Your task to perform on an android device: Search for hotels in Boston Image 0: 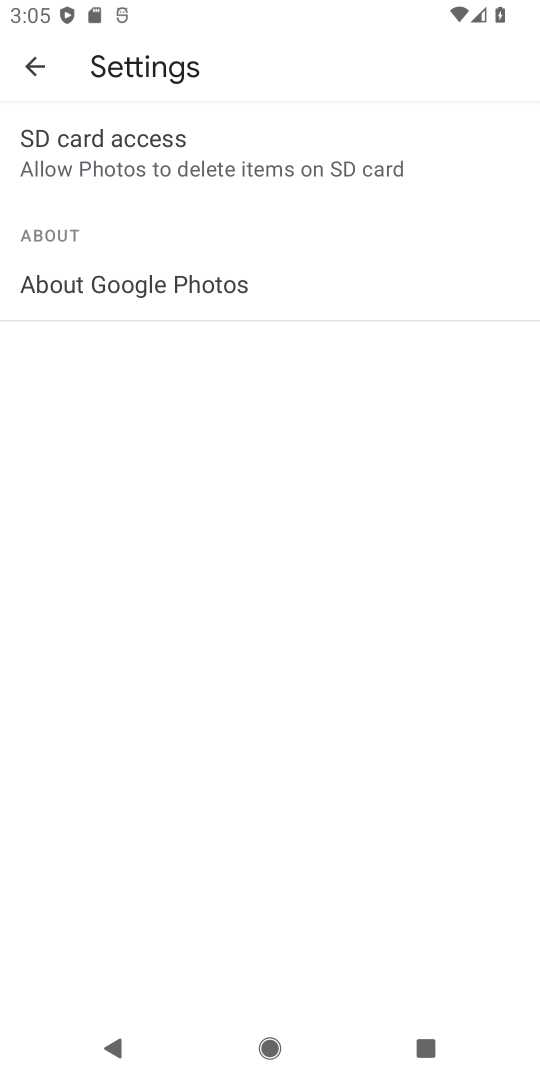
Step 0: press home button
Your task to perform on an android device: Search for hotels in Boston Image 1: 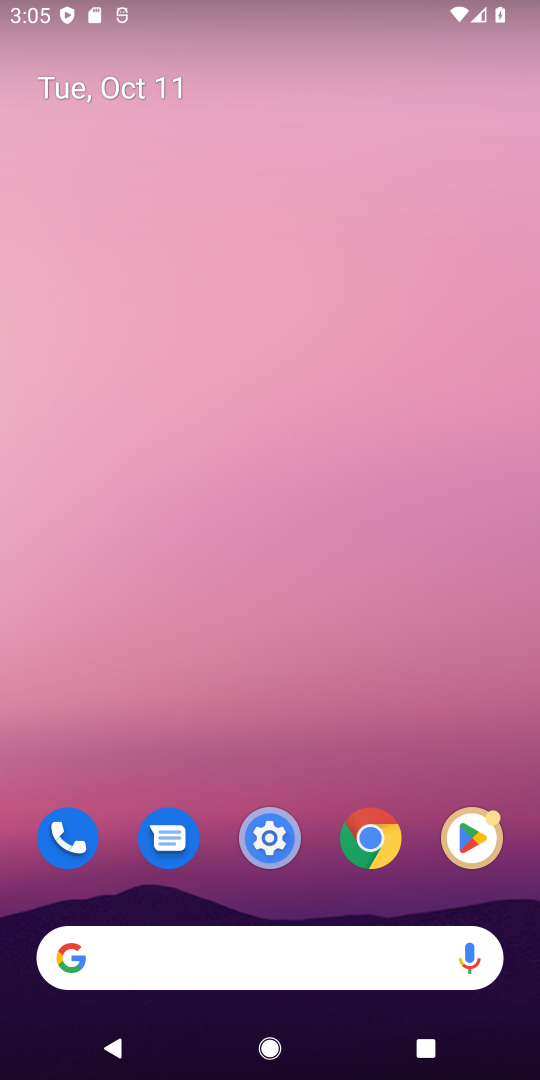
Step 1: click (213, 953)
Your task to perform on an android device: Search for hotels in Boston Image 2: 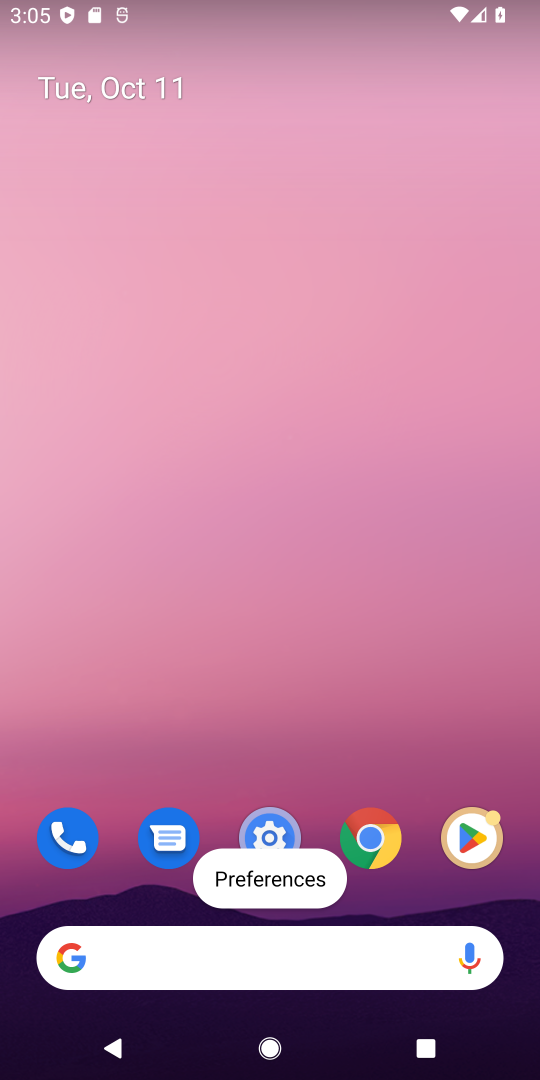
Step 2: click (200, 950)
Your task to perform on an android device: Search for hotels in Boston Image 3: 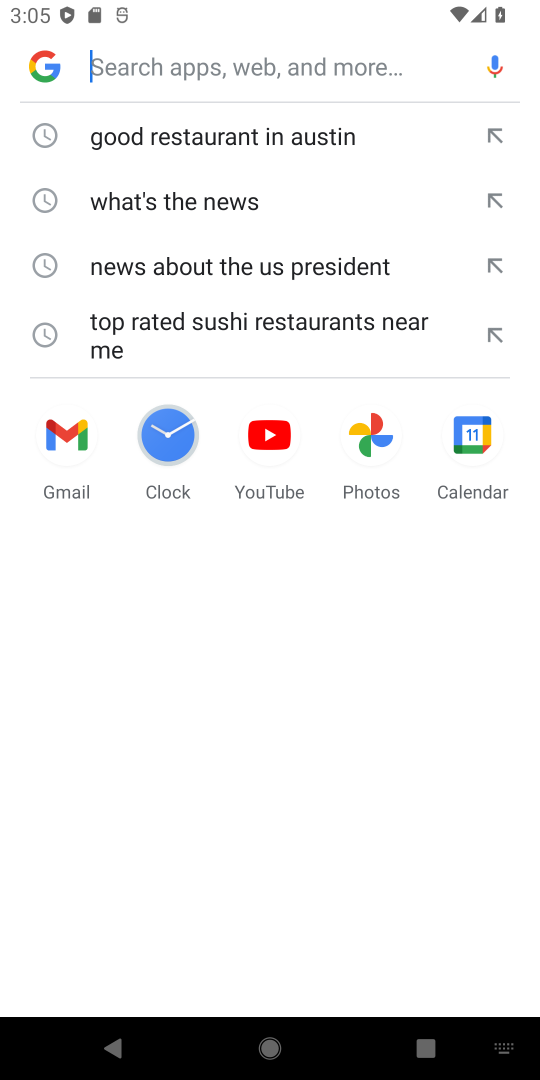
Step 3: type "hotels in Boston"
Your task to perform on an android device: Search for hotels in Boston Image 4: 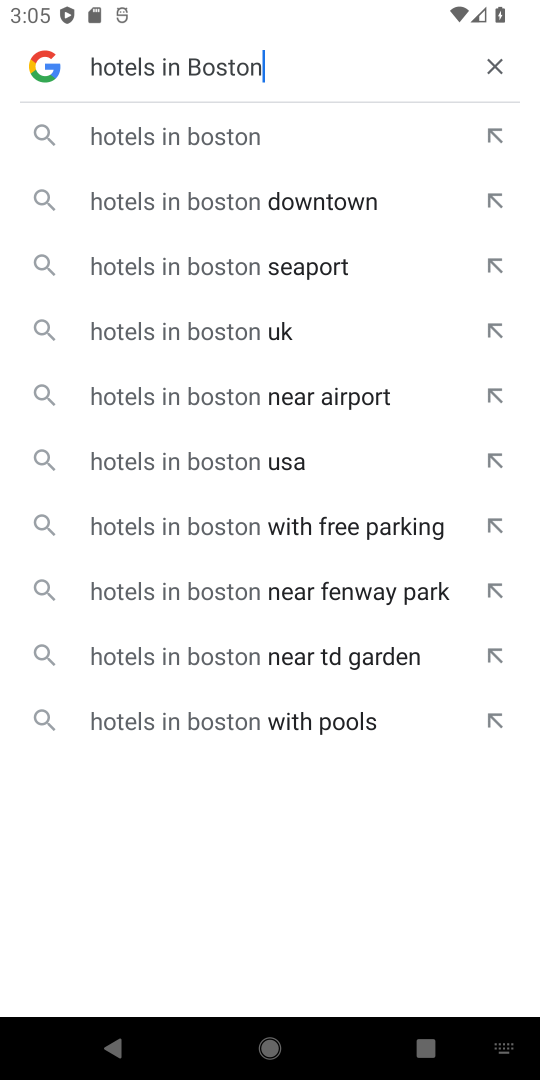
Step 4: click (198, 135)
Your task to perform on an android device: Search for hotels in Boston Image 5: 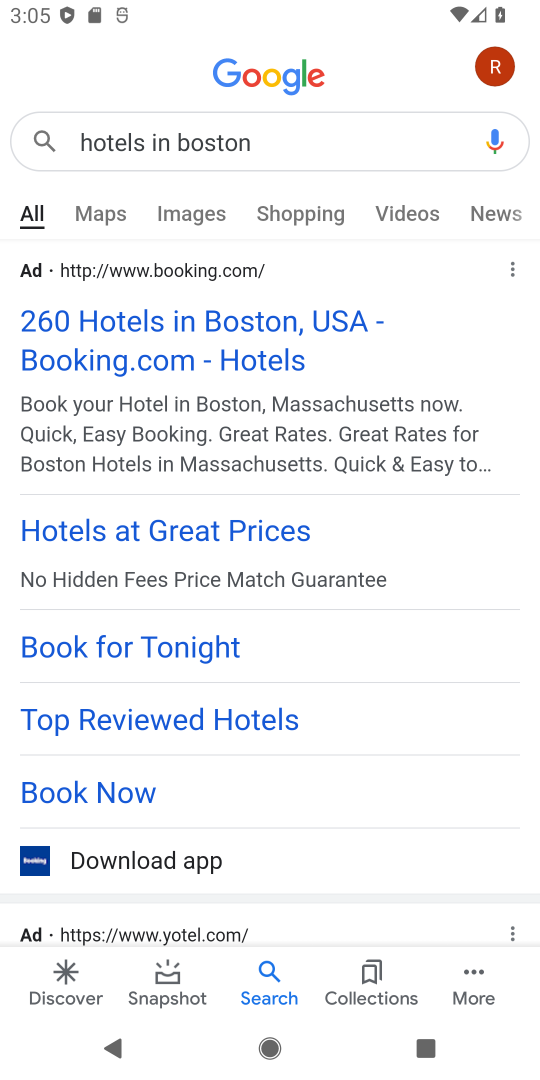
Step 5: task complete